Your task to perform on an android device: delete the emails in spam in the gmail app Image 0: 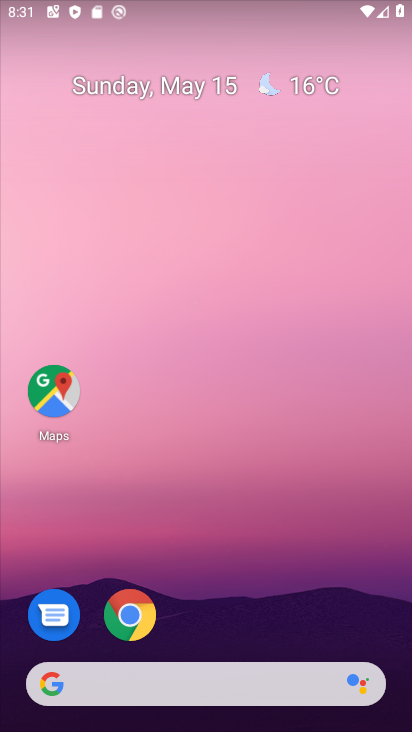
Step 0: drag from (287, 647) to (278, 137)
Your task to perform on an android device: delete the emails in spam in the gmail app Image 1: 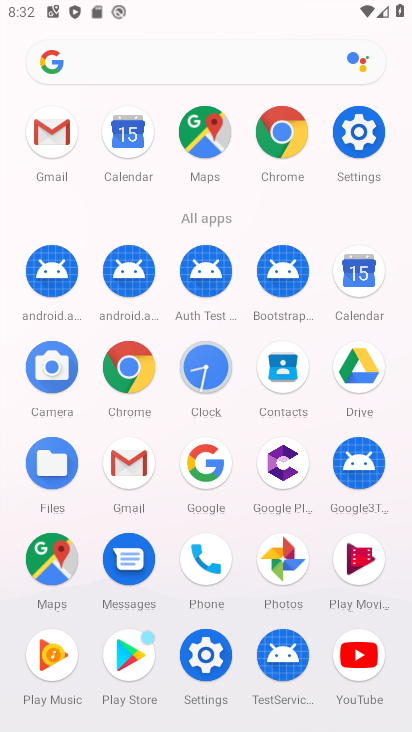
Step 1: click (138, 476)
Your task to perform on an android device: delete the emails in spam in the gmail app Image 2: 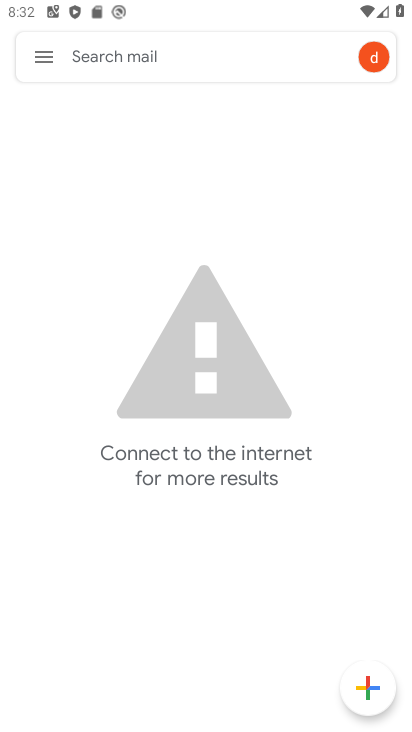
Step 2: click (36, 50)
Your task to perform on an android device: delete the emails in spam in the gmail app Image 3: 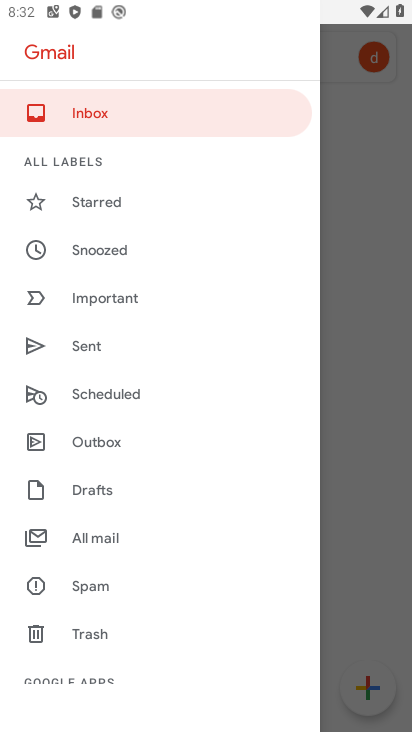
Step 3: click (118, 592)
Your task to perform on an android device: delete the emails in spam in the gmail app Image 4: 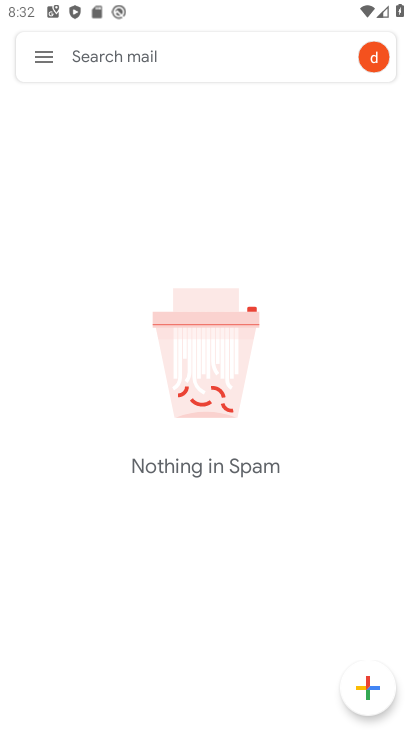
Step 4: task complete